Your task to perform on an android device: Open the web browser Image 0: 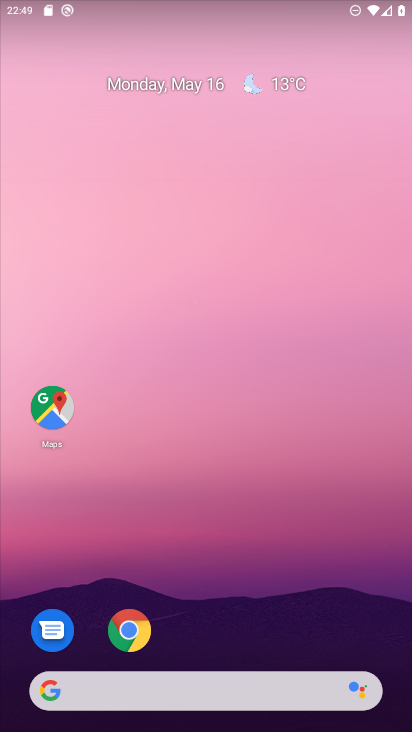
Step 0: drag from (214, 637) to (263, 40)
Your task to perform on an android device: Open the web browser Image 1: 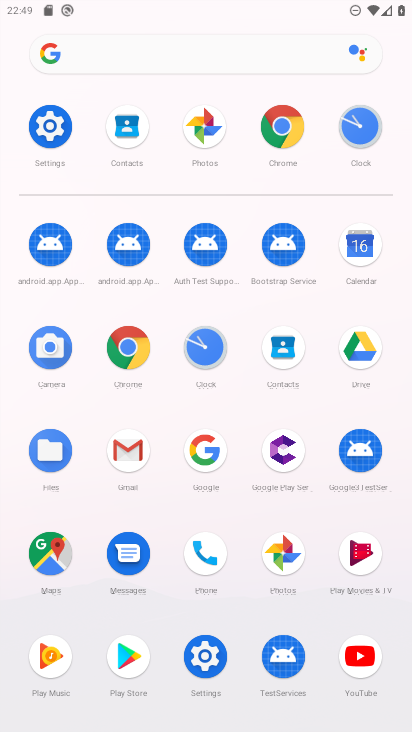
Step 1: click (141, 364)
Your task to perform on an android device: Open the web browser Image 2: 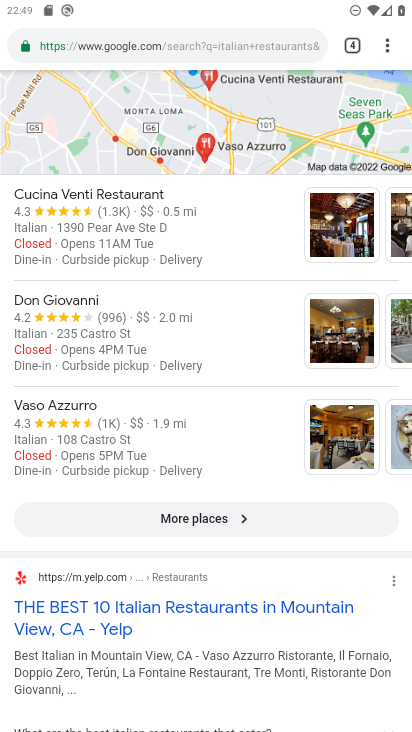
Step 2: task complete